Your task to perform on an android device: Go to sound settings Image 0: 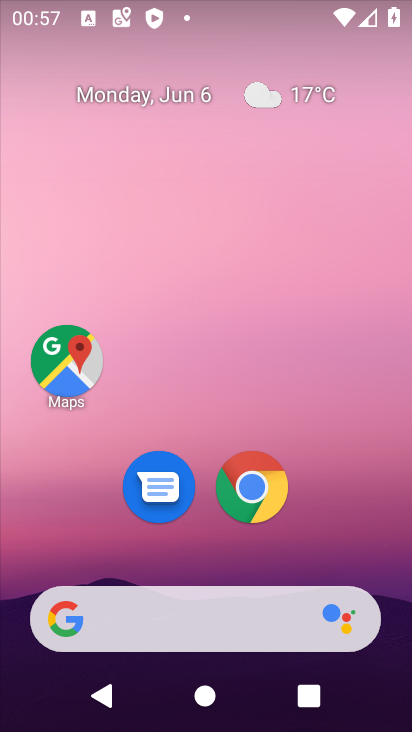
Step 0: drag from (359, 425) to (307, 7)
Your task to perform on an android device: Go to sound settings Image 1: 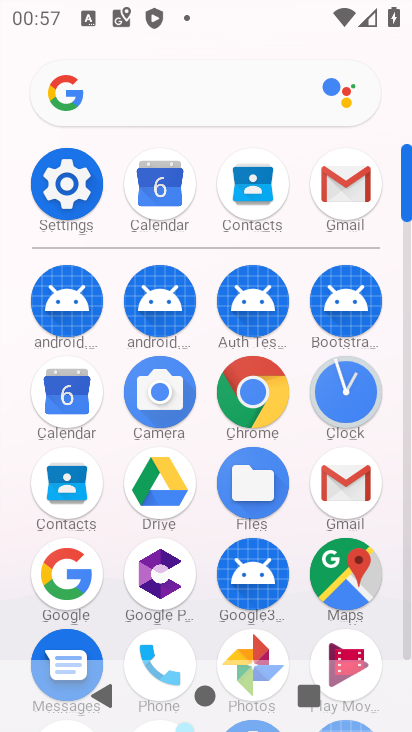
Step 1: click (407, 632)
Your task to perform on an android device: Go to sound settings Image 2: 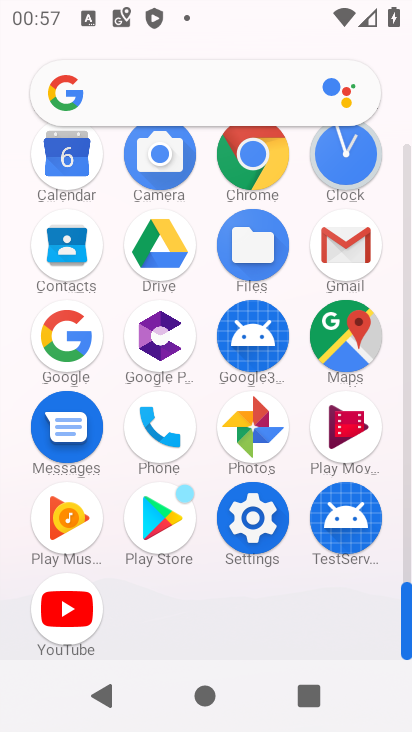
Step 2: click (250, 514)
Your task to perform on an android device: Go to sound settings Image 3: 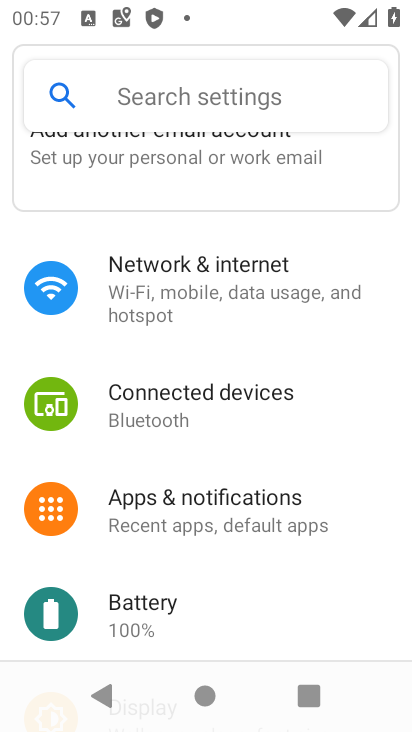
Step 3: drag from (329, 587) to (296, 151)
Your task to perform on an android device: Go to sound settings Image 4: 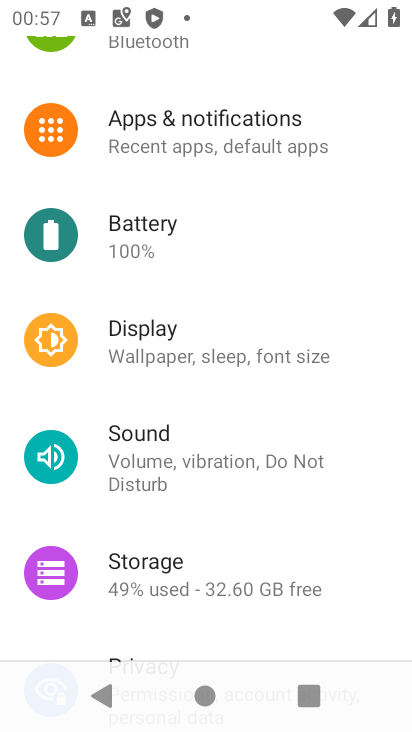
Step 4: click (146, 464)
Your task to perform on an android device: Go to sound settings Image 5: 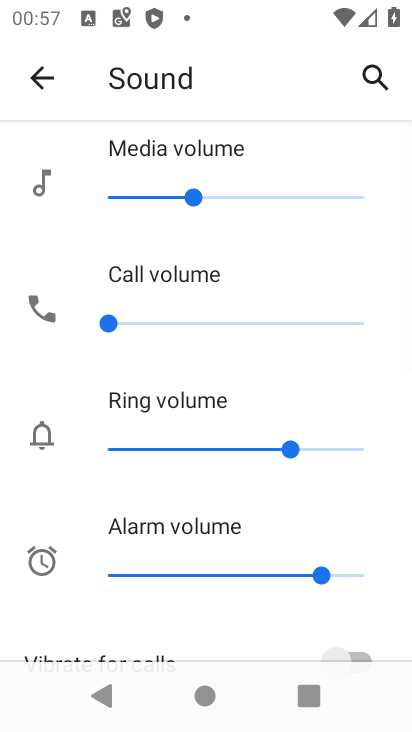
Step 5: drag from (361, 620) to (290, 133)
Your task to perform on an android device: Go to sound settings Image 6: 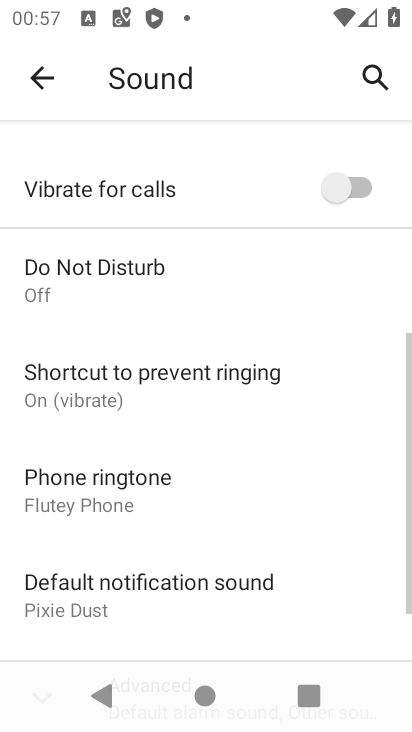
Step 6: drag from (282, 638) to (249, 150)
Your task to perform on an android device: Go to sound settings Image 7: 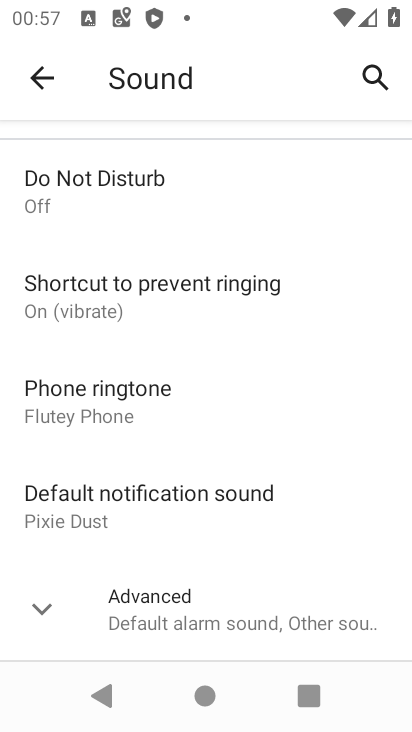
Step 7: click (42, 605)
Your task to perform on an android device: Go to sound settings Image 8: 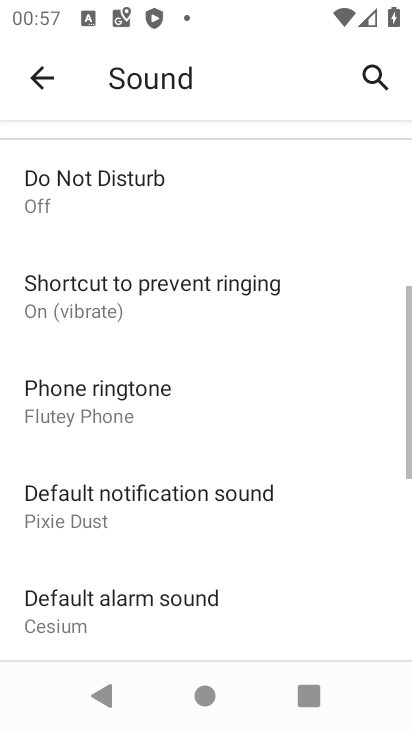
Step 8: task complete